Your task to perform on an android device: check battery use Image 0: 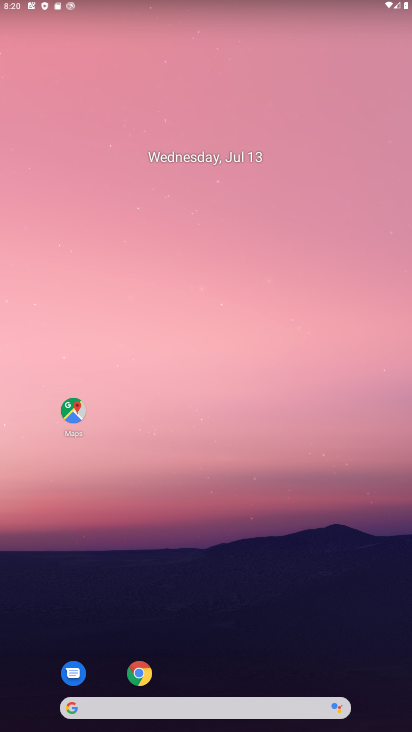
Step 0: drag from (317, 623) to (267, 127)
Your task to perform on an android device: check battery use Image 1: 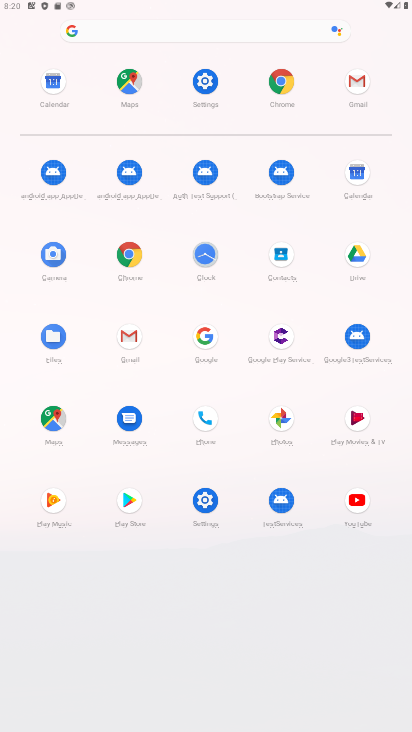
Step 1: click (208, 85)
Your task to perform on an android device: check battery use Image 2: 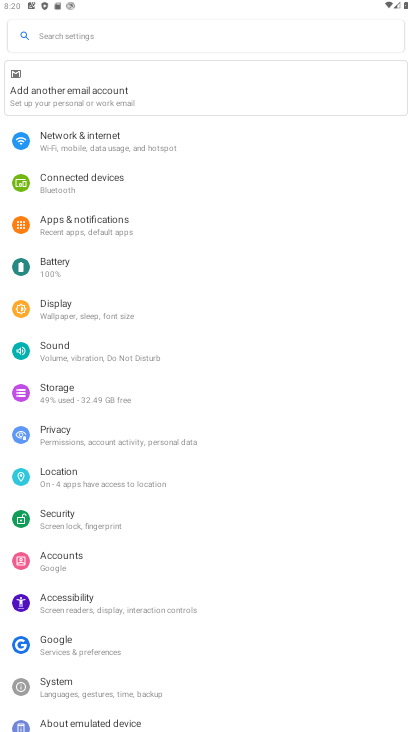
Step 2: click (51, 274)
Your task to perform on an android device: check battery use Image 3: 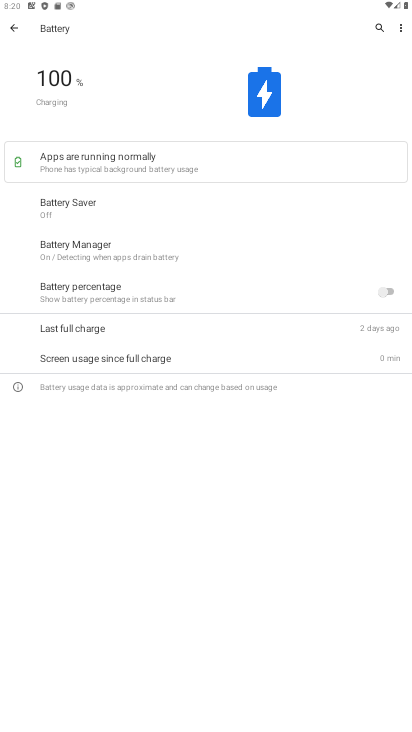
Step 3: click (402, 19)
Your task to perform on an android device: check battery use Image 4: 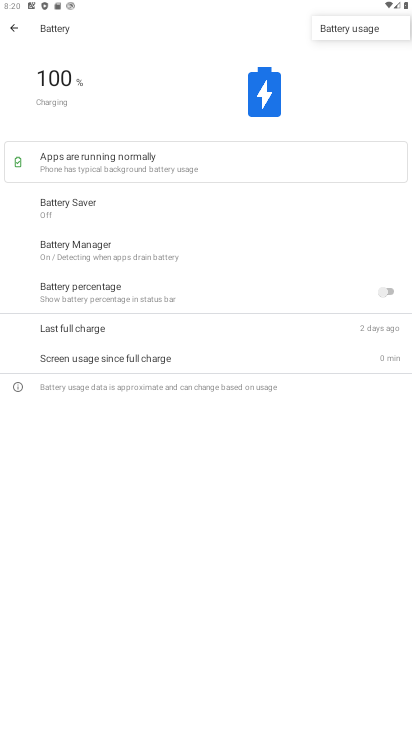
Step 4: click (375, 32)
Your task to perform on an android device: check battery use Image 5: 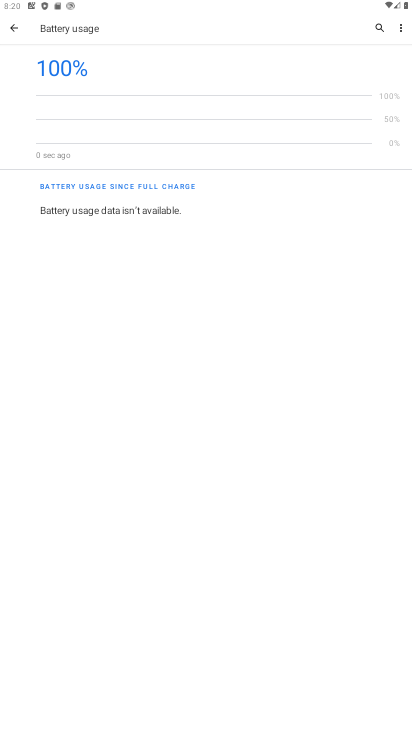
Step 5: task complete